Your task to perform on an android device: check data usage Image 0: 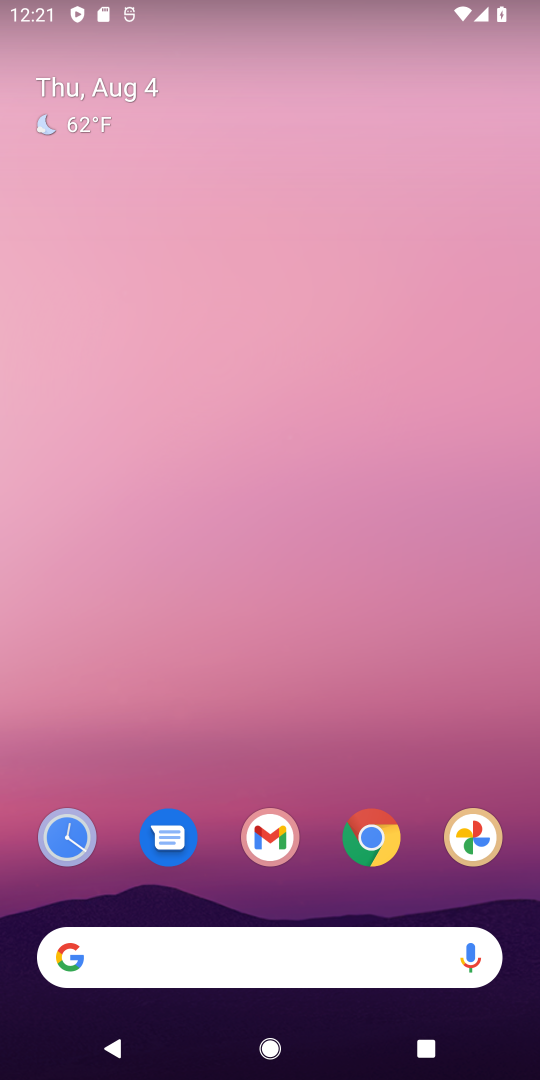
Step 0: drag from (291, 774) to (384, 5)
Your task to perform on an android device: check data usage Image 1: 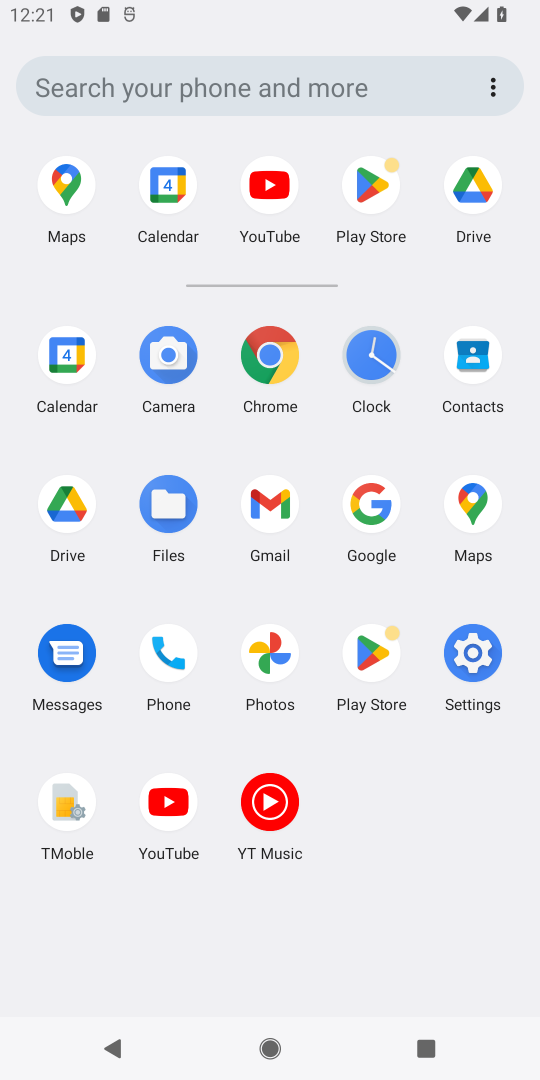
Step 1: click (473, 628)
Your task to perform on an android device: check data usage Image 2: 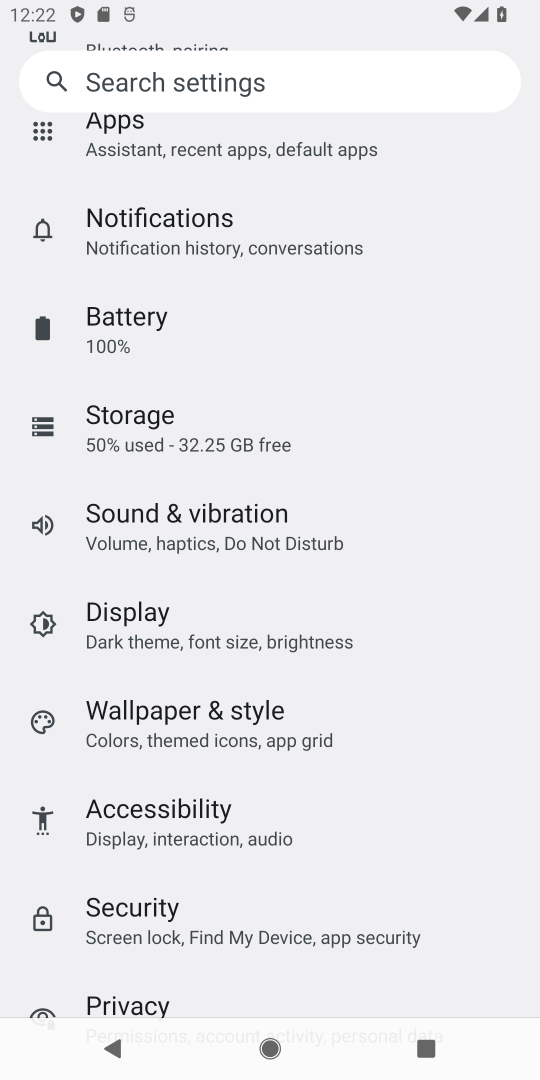
Step 2: drag from (195, 218) to (257, 523)
Your task to perform on an android device: check data usage Image 3: 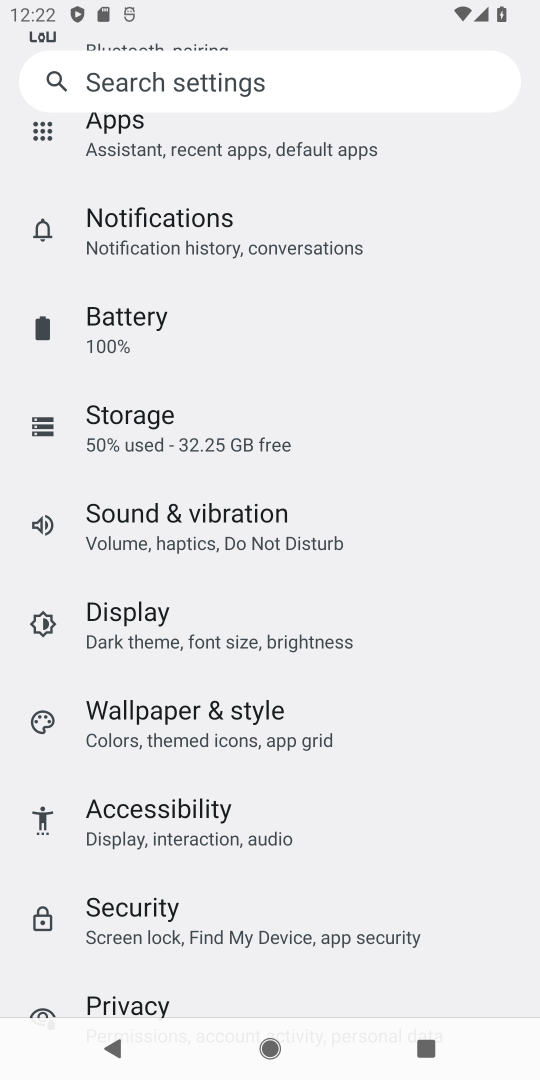
Step 3: drag from (257, 219) to (350, 1008)
Your task to perform on an android device: check data usage Image 4: 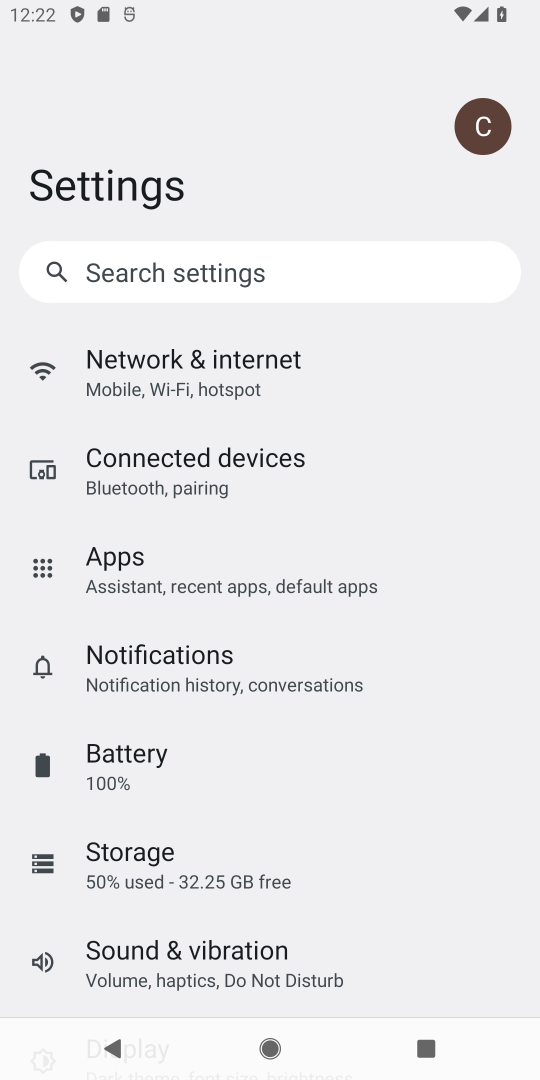
Step 4: click (338, 367)
Your task to perform on an android device: check data usage Image 5: 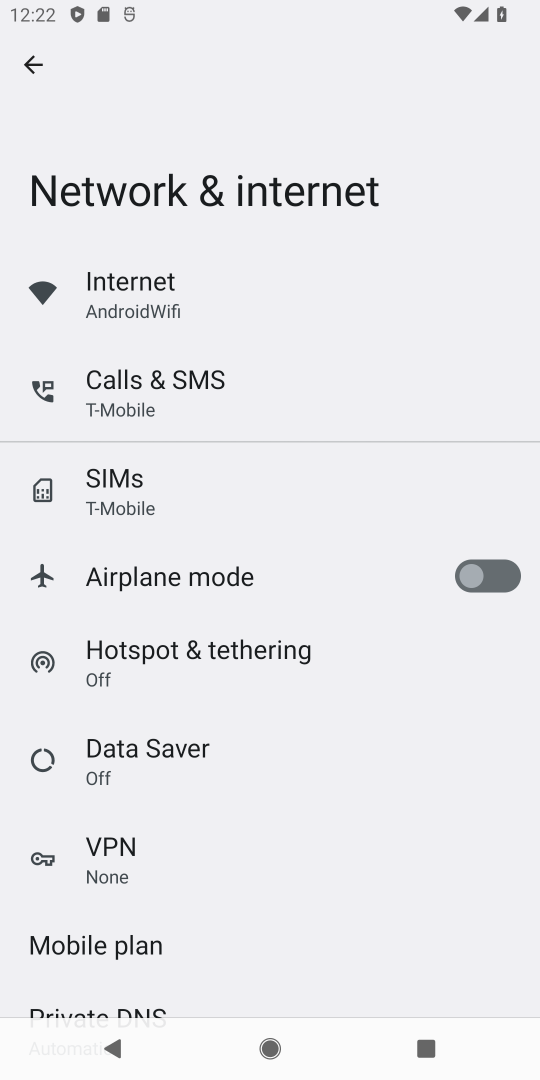
Step 5: click (153, 294)
Your task to perform on an android device: check data usage Image 6: 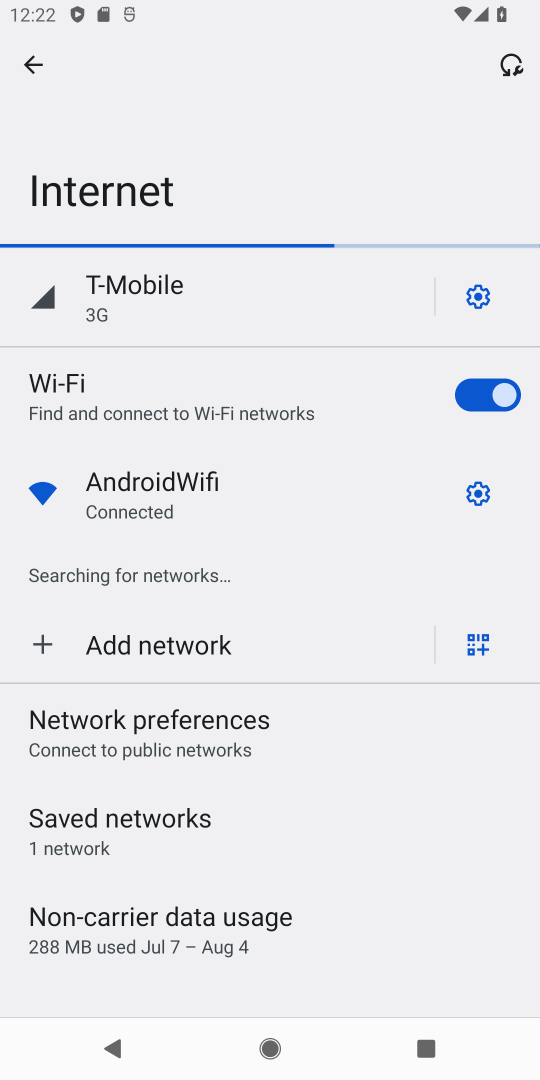
Step 6: click (207, 920)
Your task to perform on an android device: check data usage Image 7: 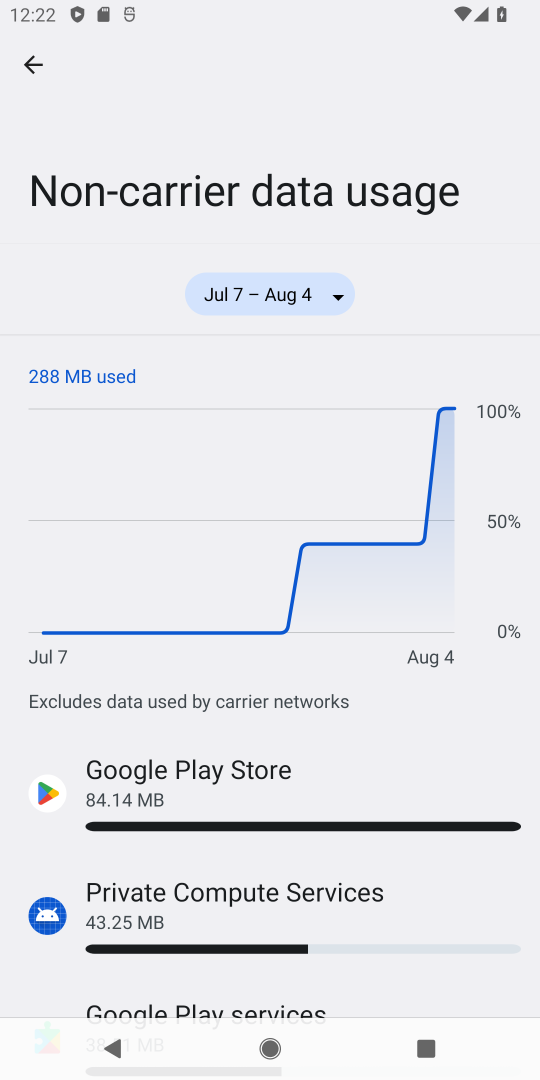
Step 7: task complete